Your task to perform on an android device: find snoozed emails in the gmail app Image 0: 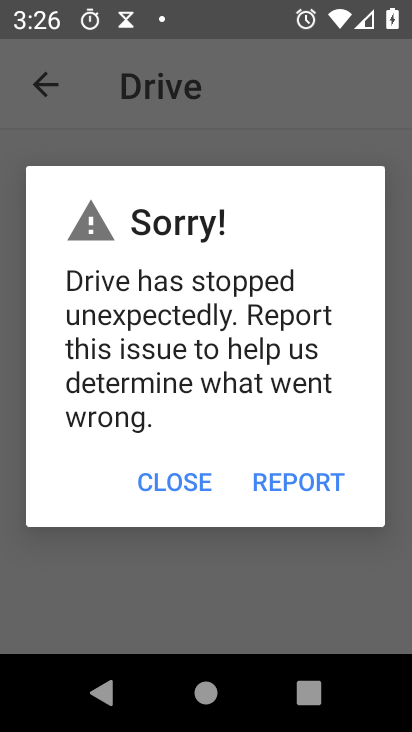
Step 0: press home button
Your task to perform on an android device: find snoozed emails in the gmail app Image 1: 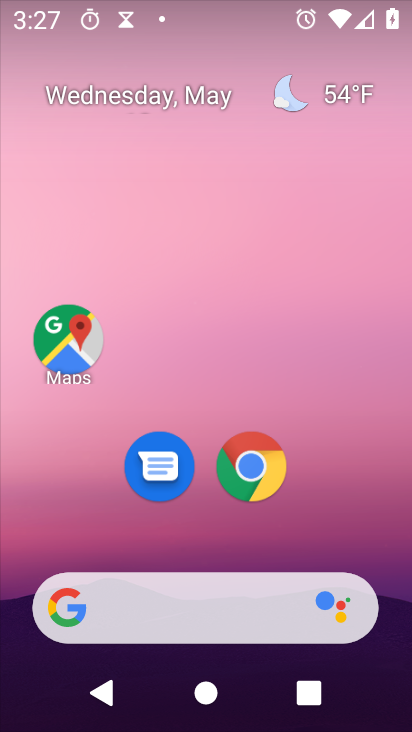
Step 1: drag from (395, 517) to (411, 141)
Your task to perform on an android device: find snoozed emails in the gmail app Image 2: 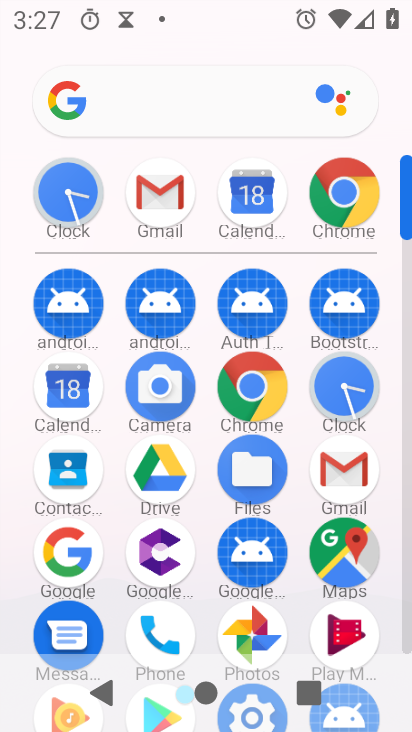
Step 2: click (348, 475)
Your task to perform on an android device: find snoozed emails in the gmail app Image 3: 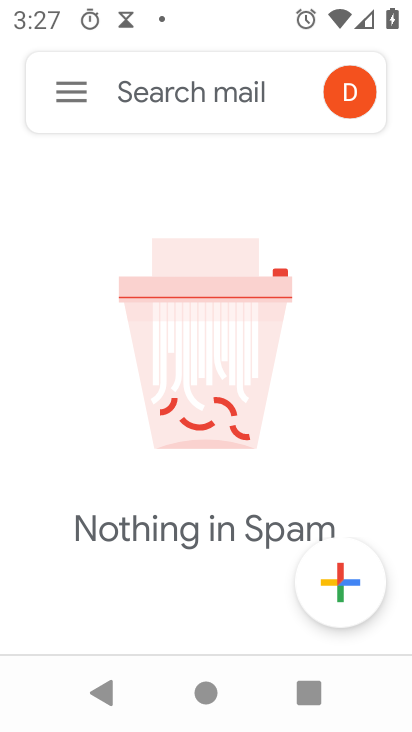
Step 3: click (78, 103)
Your task to perform on an android device: find snoozed emails in the gmail app Image 4: 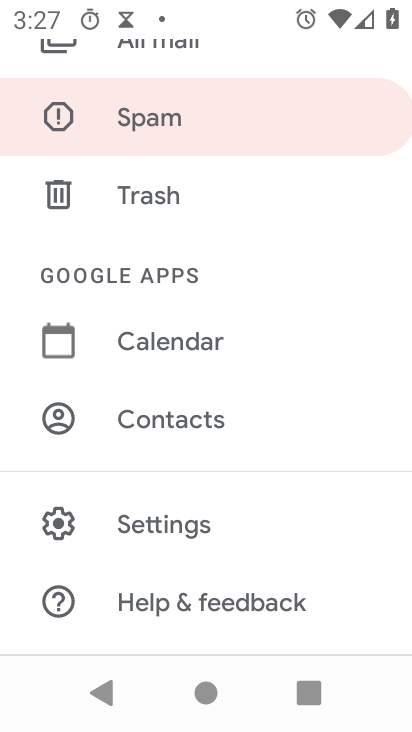
Step 4: drag from (219, 166) to (236, 533)
Your task to perform on an android device: find snoozed emails in the gmail app Image 5: 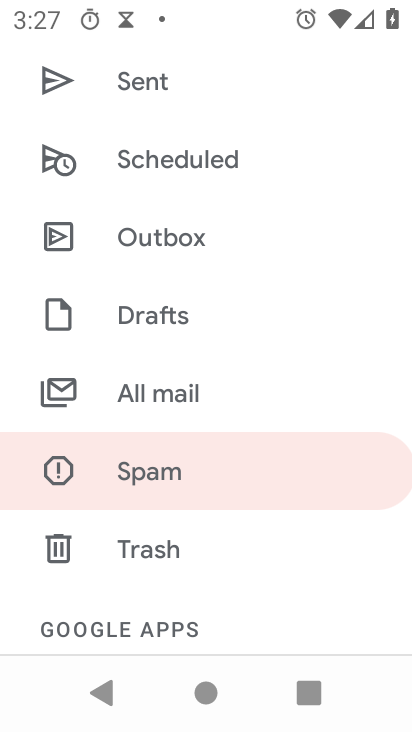
Step 5: drag from (186, 105) to (205, 538)
Your task to perform on an android device: find snoozed emails in the gmail app Image 6: 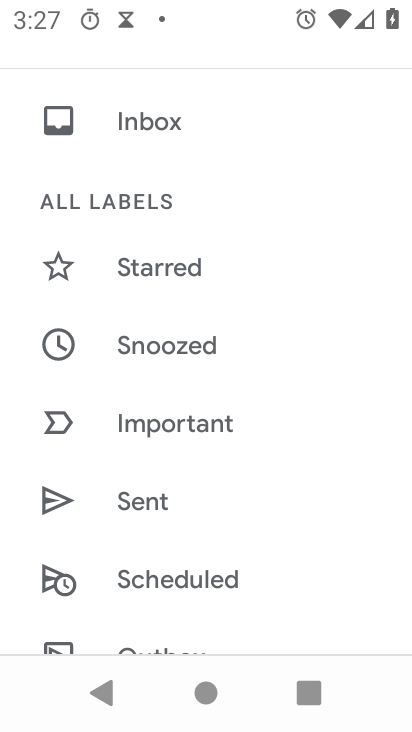
Step 6: click (206, 350)
Your task to perform on an android device: find snoozed emails in the gmail app Image 7: 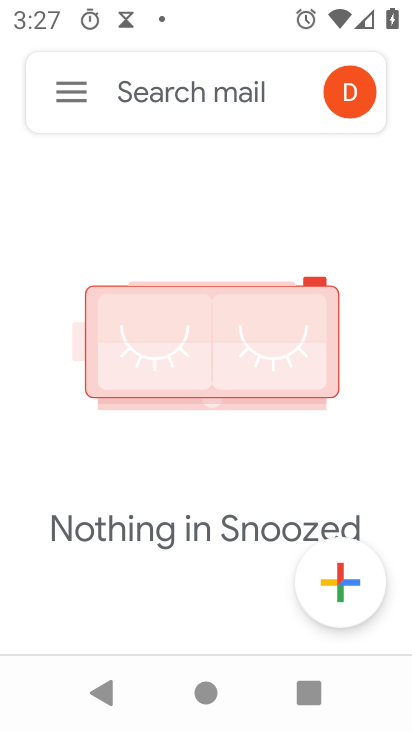
Step 7: task complete